Your task to perform on an android device: Open the calendar and show me this week's events? Image 0: 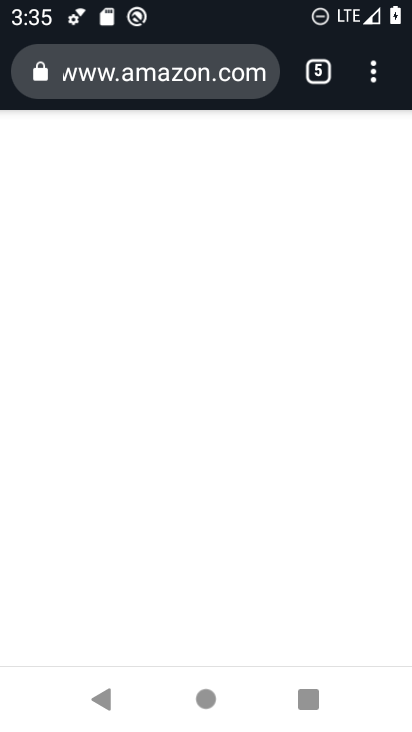
Step 0: press home button
Your task to perform on an android device: Open the calendar and show me this week's events? Image 1: 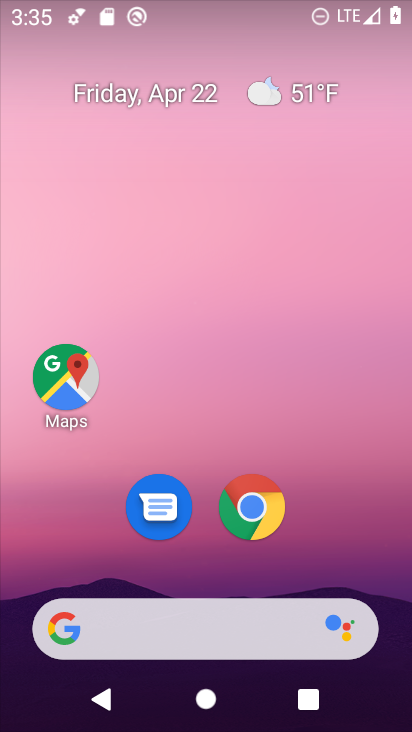
Step 1: drag from (231, 577) to (208, 75)
Your task to perform on an android device: Open the calendar and show me this week's events? Image 2: 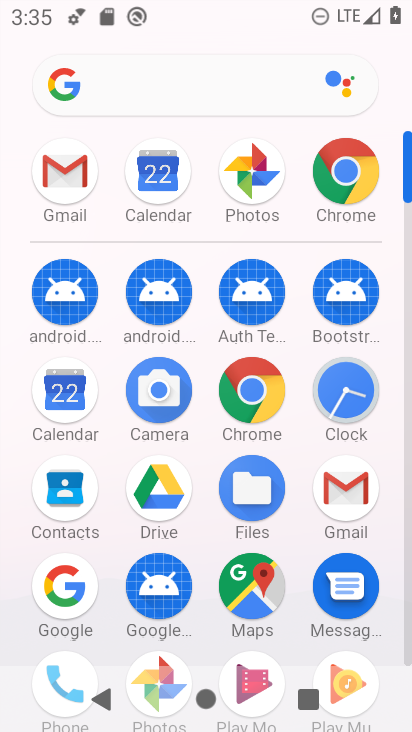
Step 2: click (63, 391)
Your task to perform on an android device: Open the calendar and show me this week's events? Image 3: 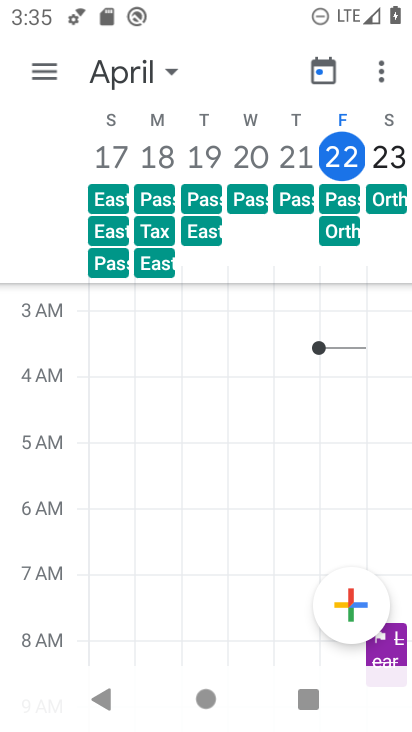
Step 3: task complete